Your task to perform on an android device: change text size in settings app Image 0: 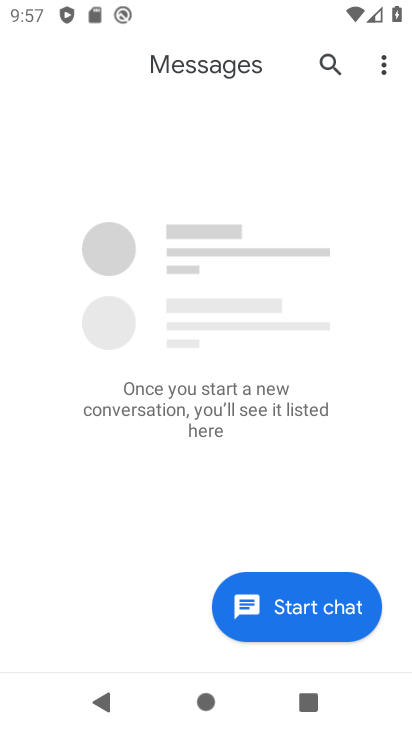
Step 0: press home button
Your task to perform on an android device: change text size in settings app Image 1: 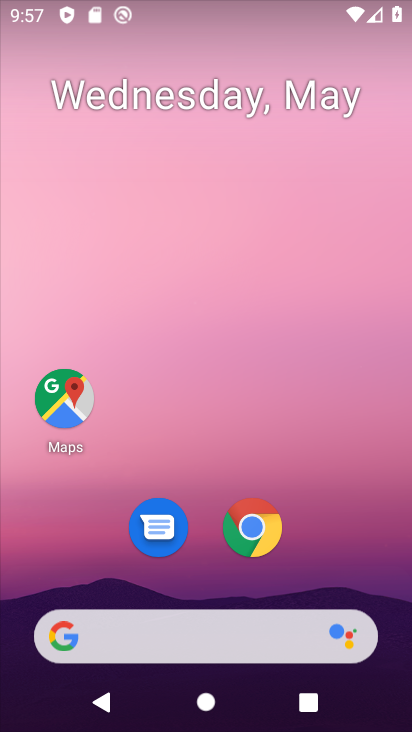
Step 1: drag from (181, 556) to (220, 47)
Your task to perform on an android device: change text size in settings app Image 2: 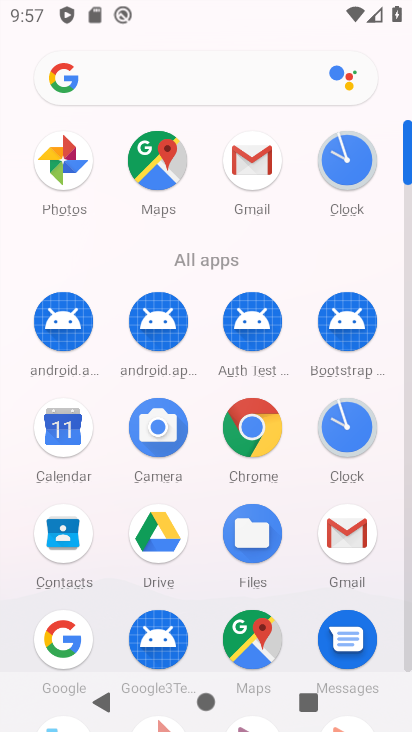
Step 2: drag from (222, 574) to (238, 216)
Your task to perform on an android device: change text size in settings app Image 3: 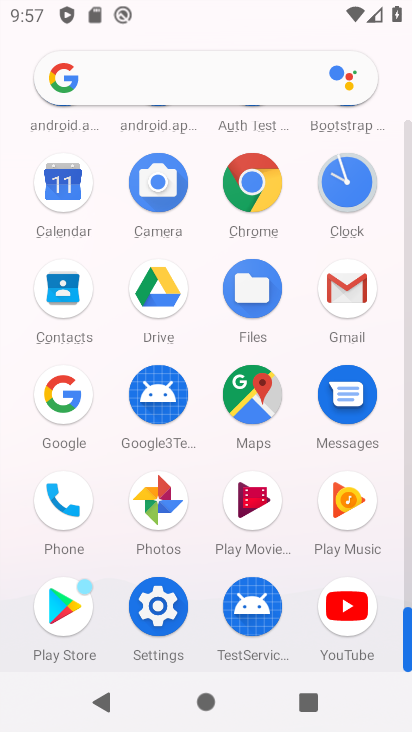
Step 3: click (167, 611)
Your task to perform on an android device: change text size in settings app Image 4: 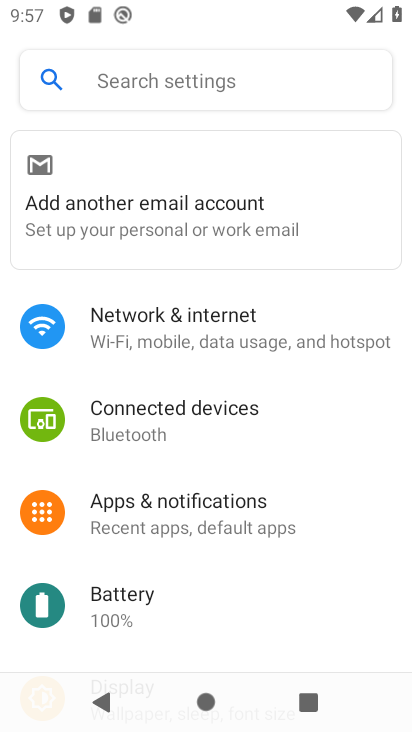
Step 4: drag from (168, 589) to (169, 172)
Your task to perform on an android device: change text size in settings app Image 5: 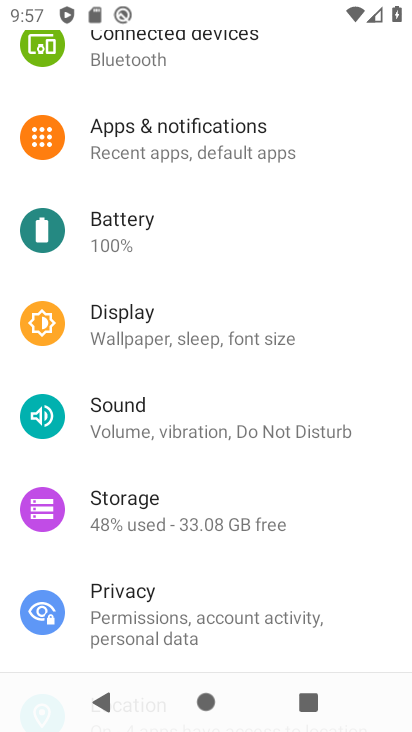
Step 5: click (204, 331)
Your task to perform on an android device: change text size in settings app Image 6: 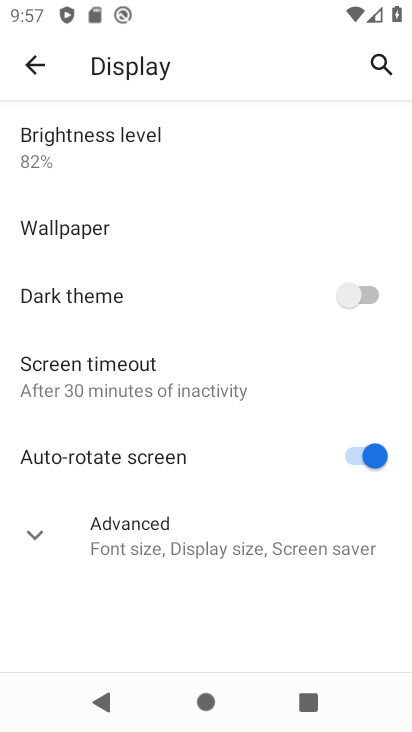
Step 6: click (35, 541)
Your task to perform on an android device: change text size in settings app Image 7: 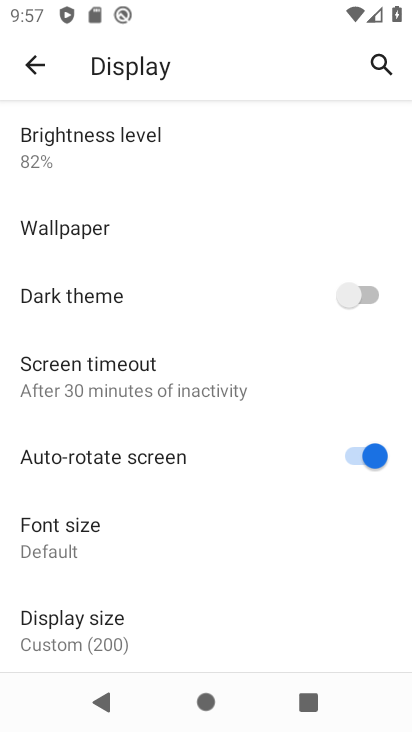
Step 7: drag from (93, 569) to (132, 364)
Your task to perform on an android device: change text size in settings app Image 8: 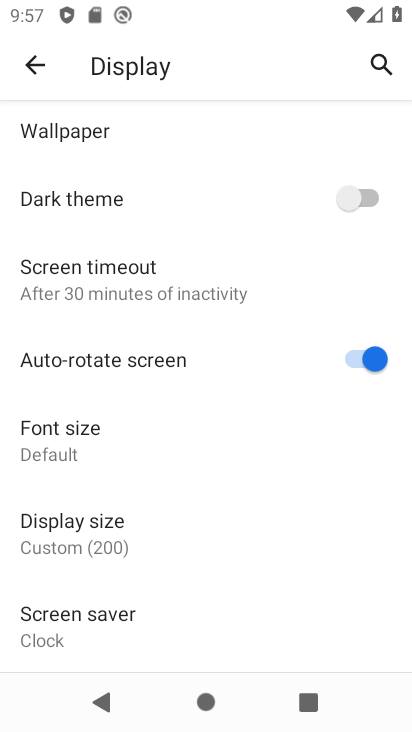
Step 8: click (76, 449)
Your task to perform on an android device: change text size in settings app Image 9: 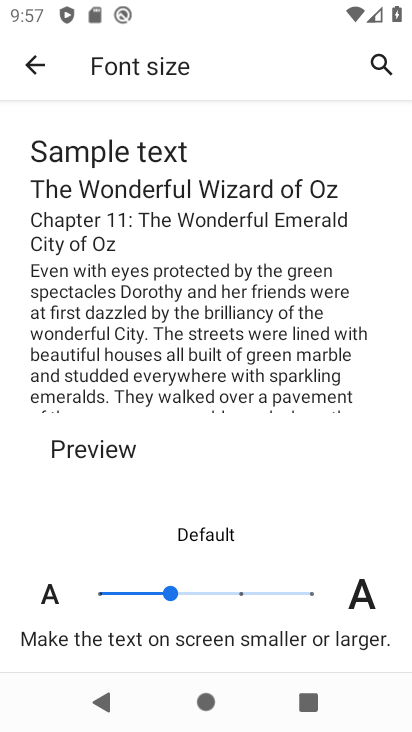
Step 9: click (196, 593)
Your task to perform on an android device: change text size in settings app Image 10: 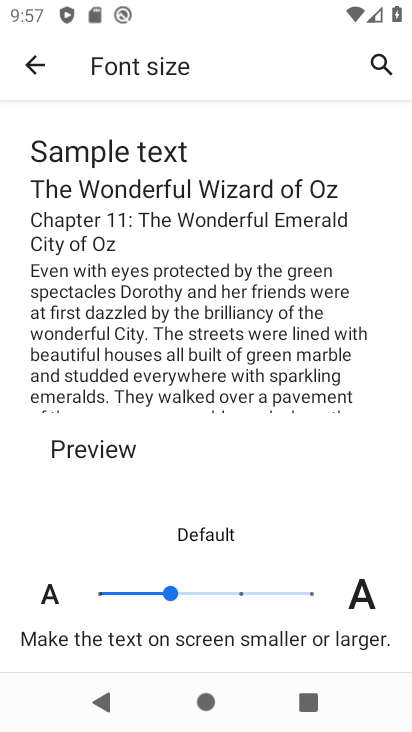
Step 10: click (172, 592)
Your task to perform on an android device: change text size in settings app Image 11: 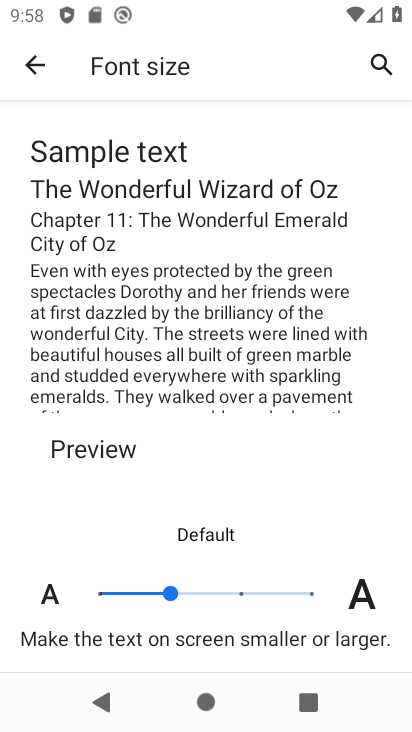
Step 11: click (238, 590)
Your task to perform on an android device: change text size in settings app Image 12: 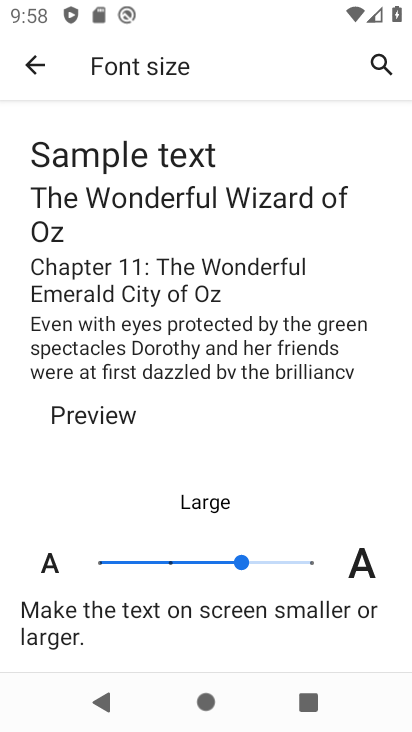
Step 12: task complete